Your task to perform on an android device: Open Chrome and go to settings Image 0: 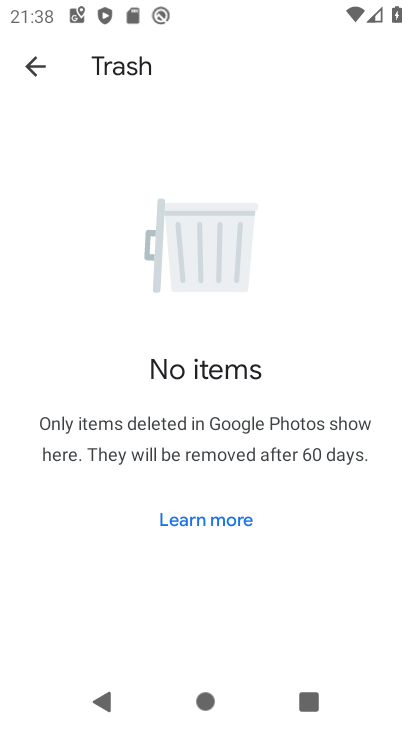
Step 0: press home button
Your task to perform on an android device: Open Chrome and go to settings Image 1: 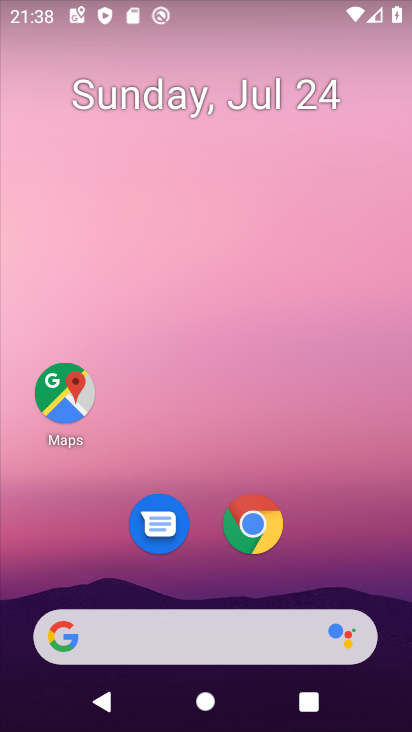
Step 1: click (260, 528)
Your task to perform on an android device: Open Chrome and go to settings Image 2: 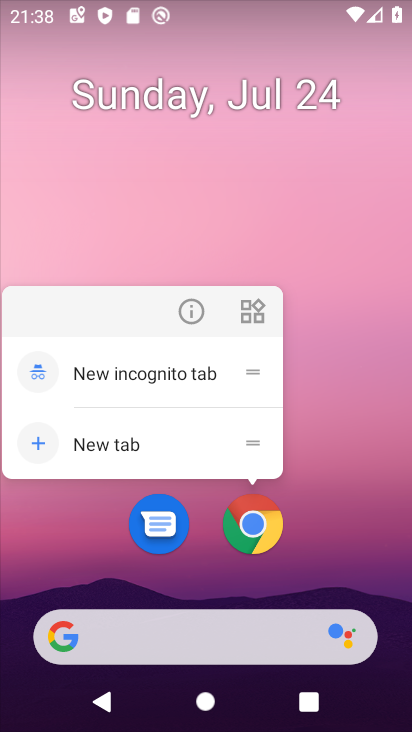
Step 2: click (251, 529)
Your task to perform on an android device: Open Chrome and go to settings Image 3: 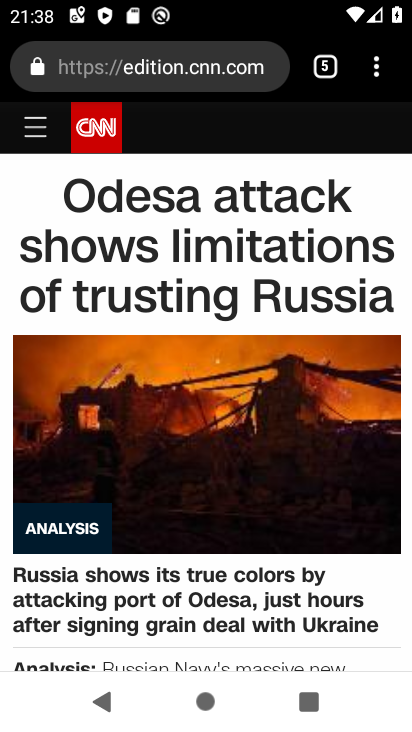
Step 3: task complete